Your task to perform on an android device: set default search engine in the chrome app Image 0: 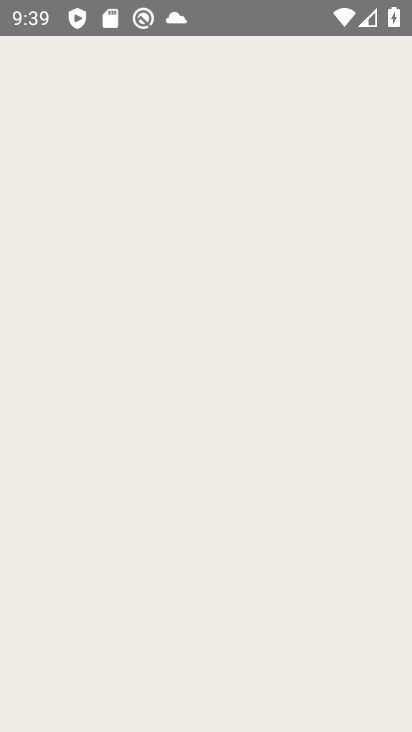
Step 0: press home button
Your task to perform on an android device: set default search engine in the chrome app Image 1: 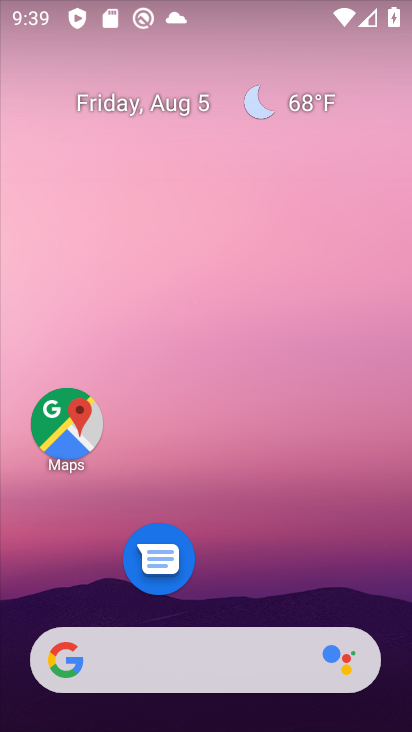
Step 1: drag from (185, 648) to (265, 132)
Your task to perform on an android device: set default search engine in the chrome app Image 2: 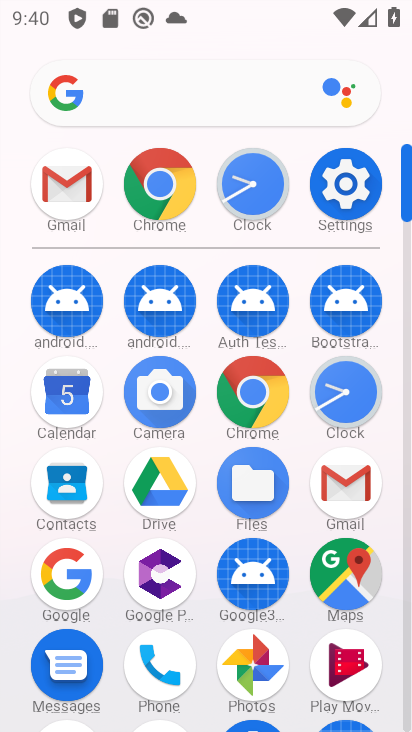
Step 2: click (173, 204)
Your task to perform on an android device: set default search engine in the chrome app Image 3: 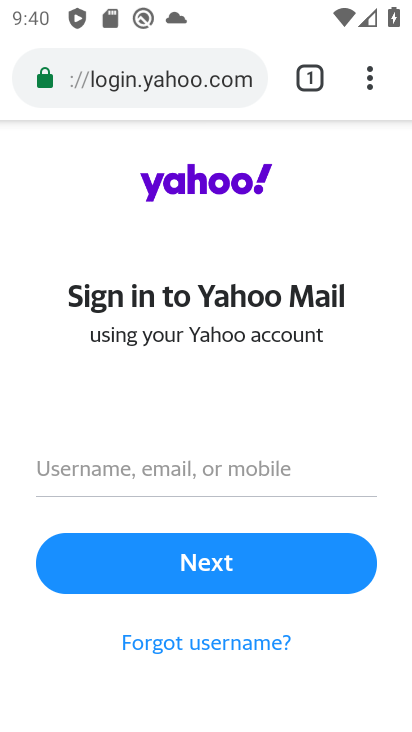
Step 3: click (373, 83)
Your task to perform on an android device: set default search engine in the chrome app Image 4: 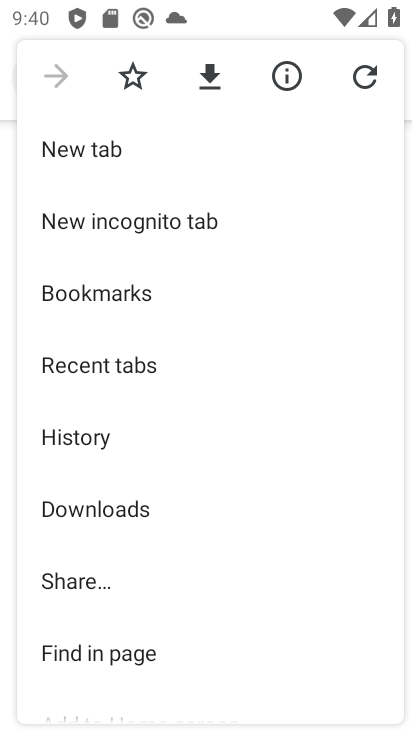
Step 4: drag from (135, 658) to (113, 537)
Your task to perform on an android device: set default search engine in the chrome app Image 5: 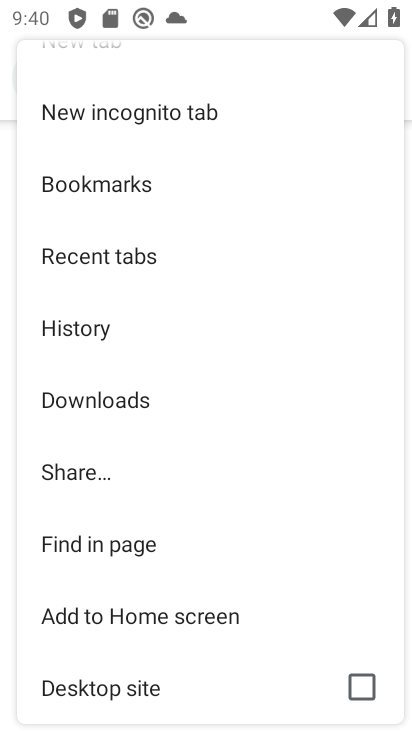
Step 5: drag from (140, 662) to (126, 578)
Your task to perform on an android device: set default search engine in the chrome app Image 6: 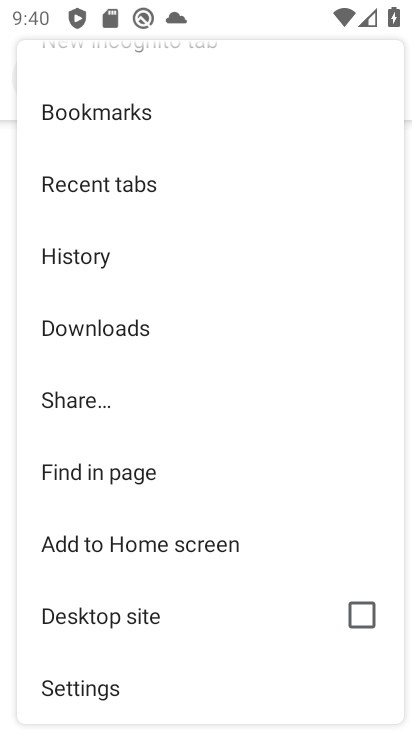
Step 6: click (123, 692)
Your task to perform on an android device: set default search engine in the chrome app Image 7: 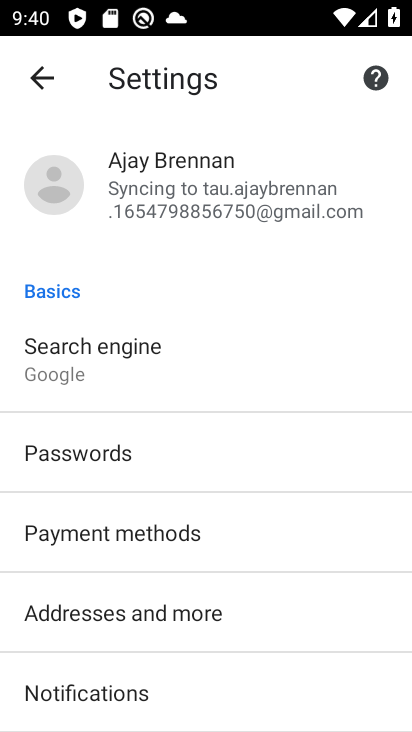
Step 7: click (101, 379)
Your task to perform on an android device: set default search engine in the chrome app Image 8: 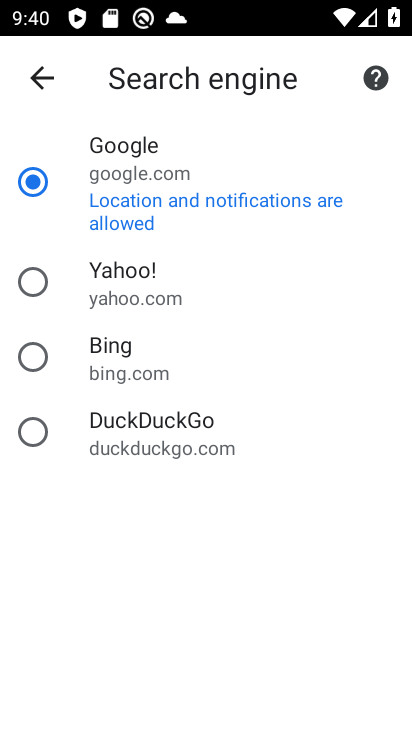
Step 8: task complete